Your task to perform on an android device: toggle improve location accuracy Image 0: 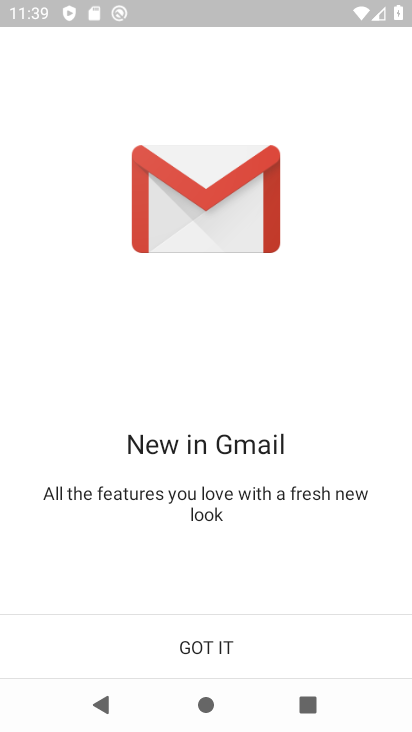
Step 0: press back button
Your task to perform on an android device: toggle improve location accuracy Image 1: 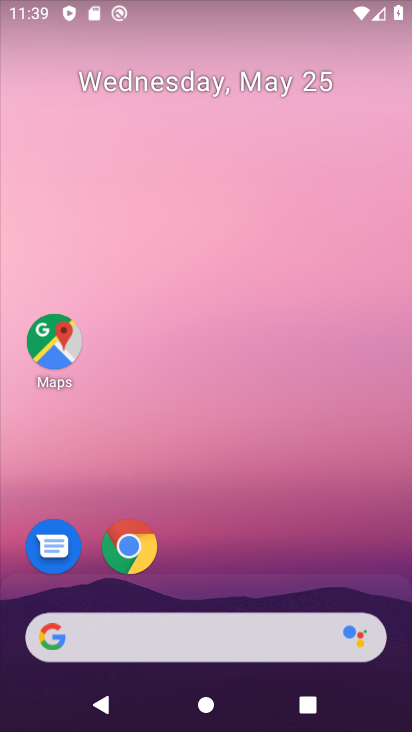
Step 1: drag from (244, 653) to (106, 135)
Your task to perform on an android device: toggle improve location accuracy Image 2: 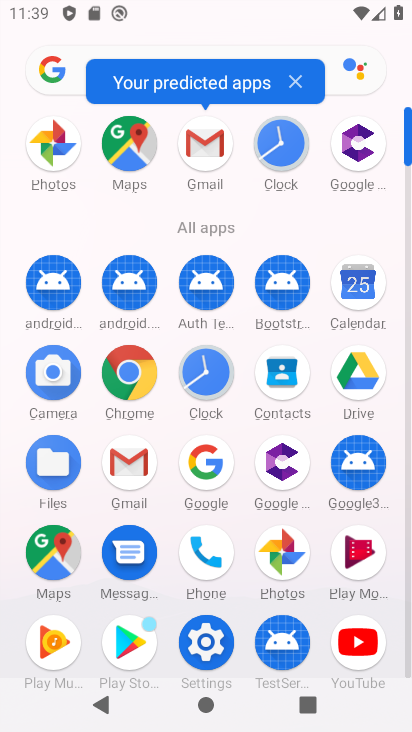
Step 2: drag from (222, 357) to (152, 61)
Your task to perform on an android device: toggle improve location accuracy Image 3: 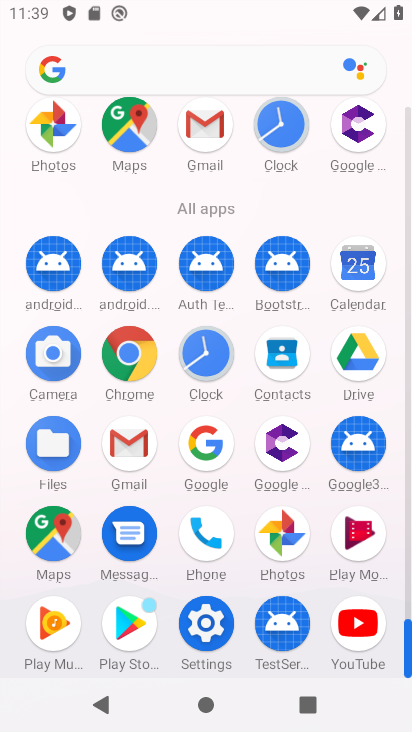
Step 3: click (209, 633)
Your task to perform on an android device: toggle improve location accuracy Image 4: 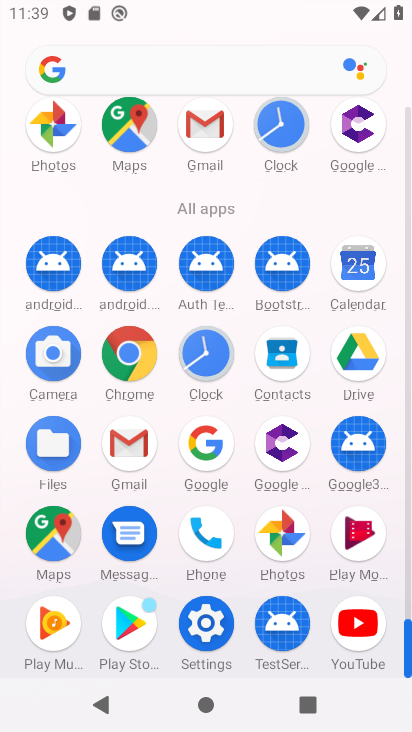
Step 4: click (209, 633)
Your task to perform on an android device: toggle improve location accuracy Image 5: 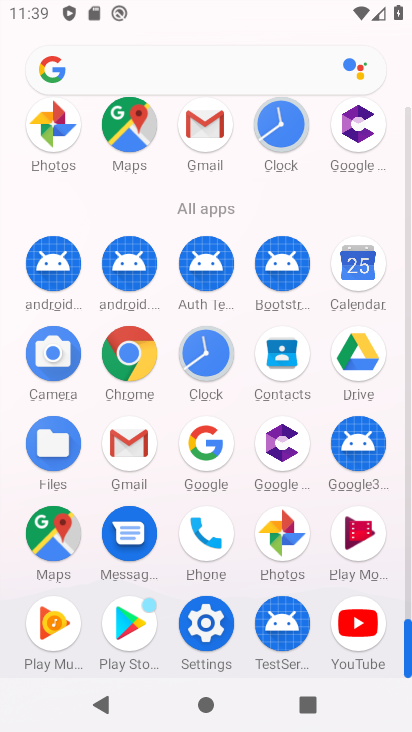
Step 5: click (212, 624)
Your task to perform on an android device: toggle improve location accuracy Image 6: 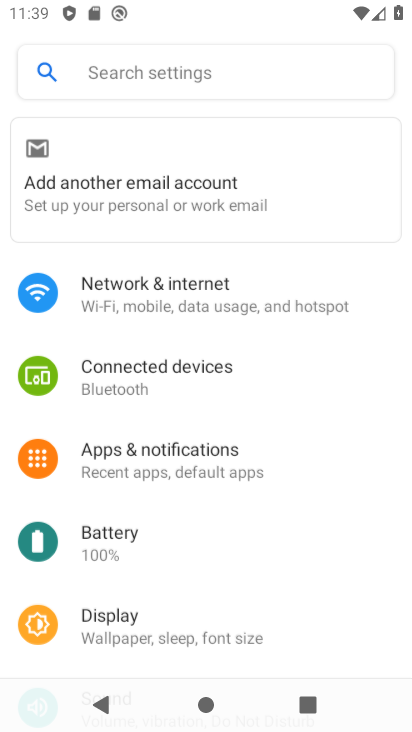
Step 6: click (200, 605)
Your task to perform on an android device: toggle improve location accuracy Image 7: 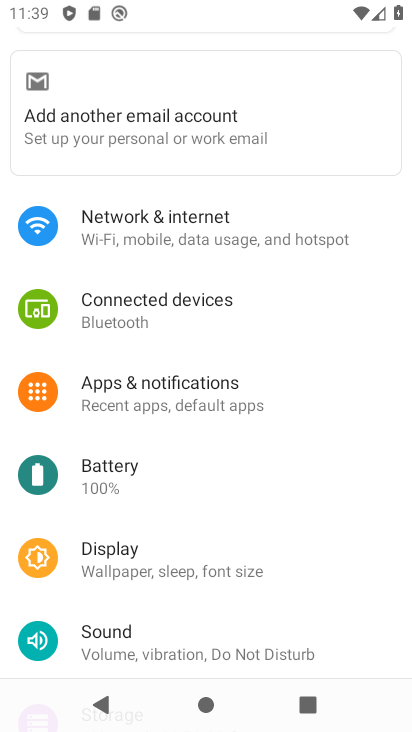
Step 7: click (202, 603)
Your task to perform on an android device: toggle improve location accuracy Image 8: 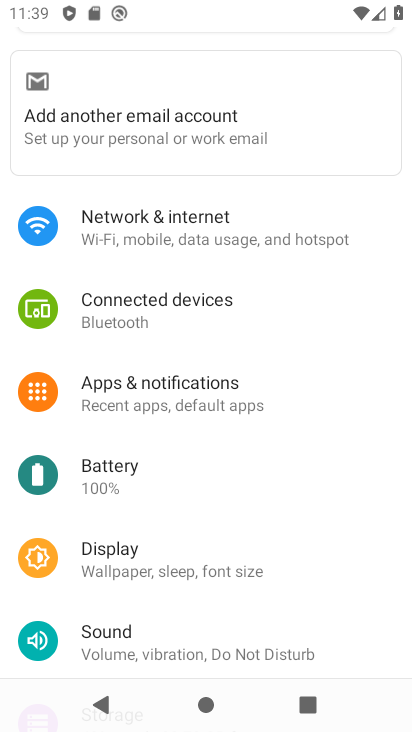
Step 8: click (202, 603)
Your task to perform on an android device: toggle improve location accuracy Image 9: 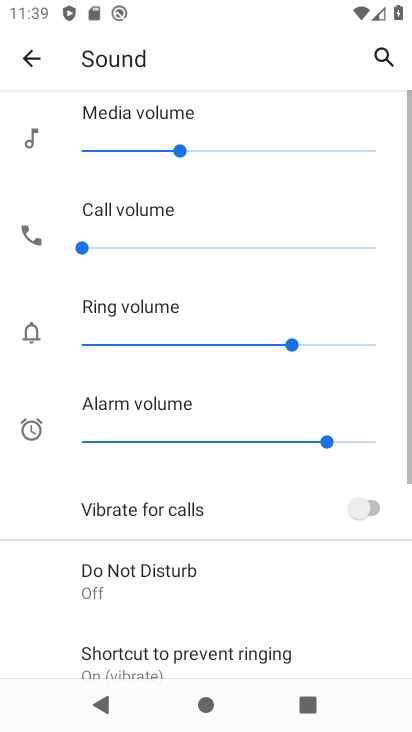
Step 9: click (180, 216)
Your task to perform on an android device: toggle improve location accuracy Image 10: 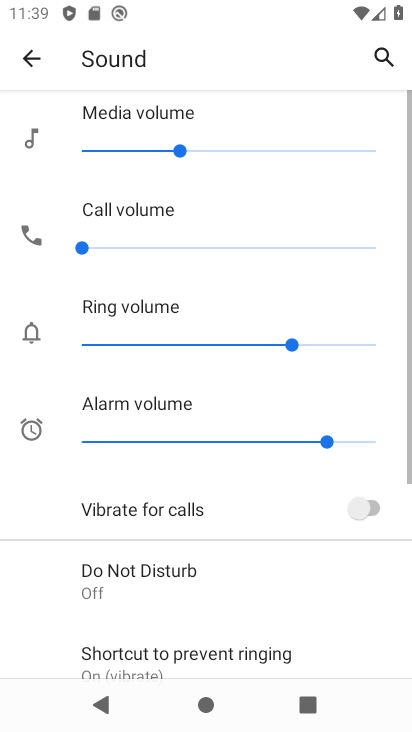
Step 10: click (180, 218)
Your task to perform on an android device: toggle improve location accuracy Image 11: 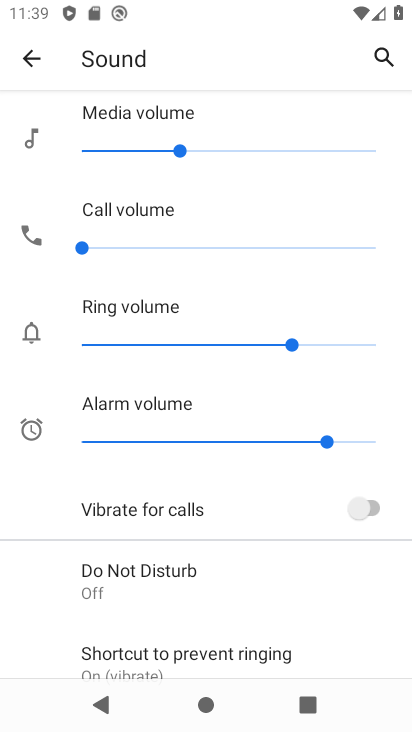
Step 11: click (180, 218)
Your task to perform on an android device: toggle improve location accuracy Image 12: 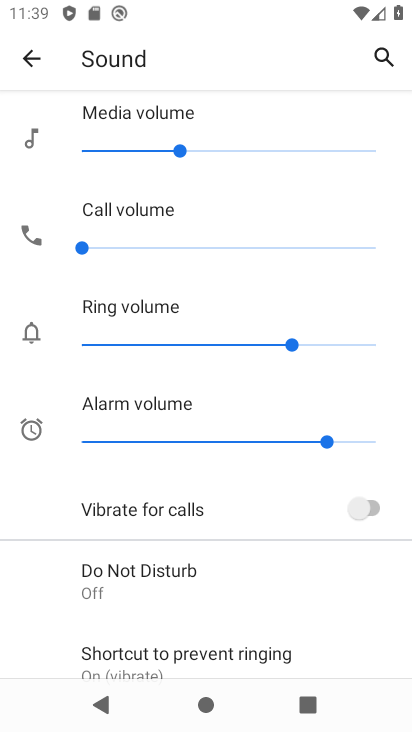
Step 12: drag from (182, 221) to (203, 273)
Your task to perform on an android device: toggle improve location accuracy Image 13: 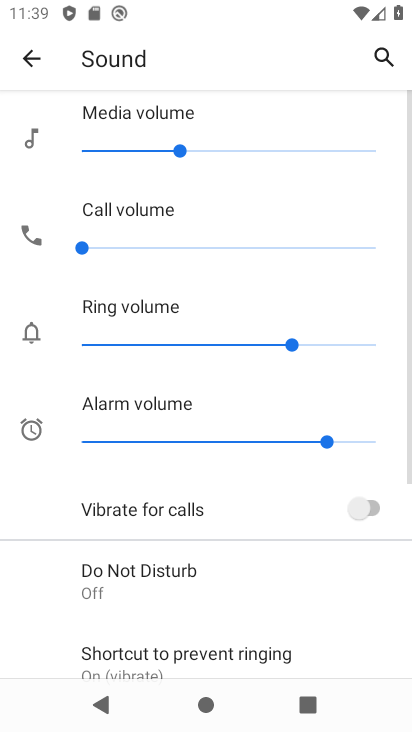
Step 13: click (183, 223)
Your task to perform on an android device: toggle improve location accuracy Image 14: 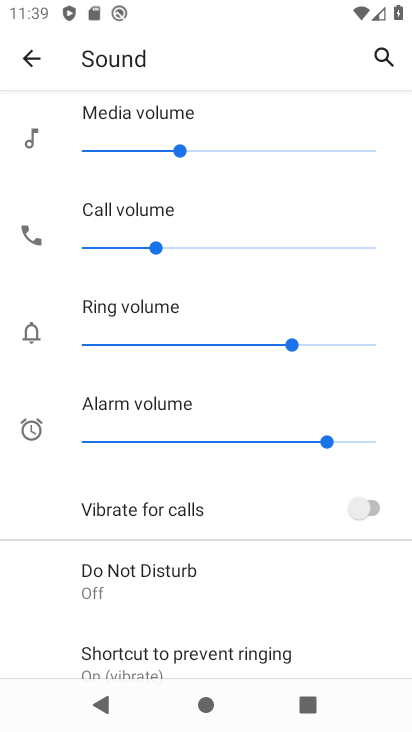
Step 14: task complete